Your task to perform on an android device: check out phone information Image 0: 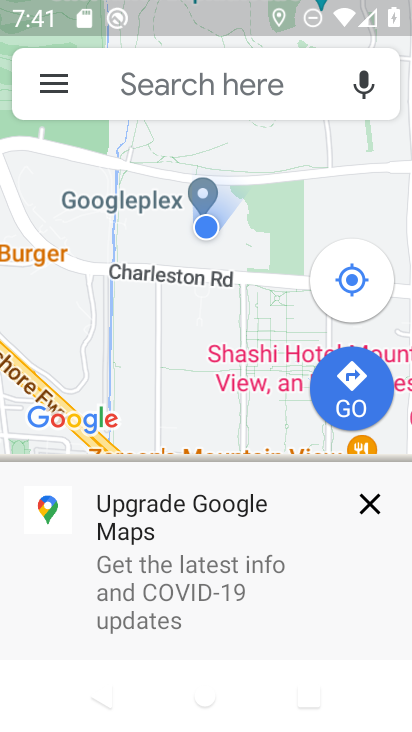
Step 0: press home button
Your task to perform on an android device: check out phone information Image 1: 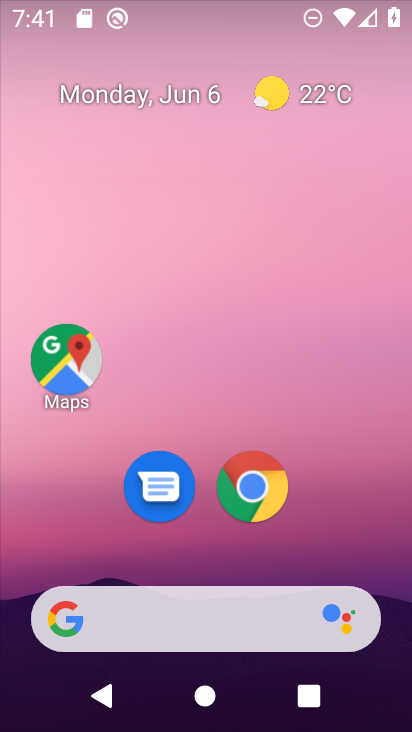
Step 1: click (388, 612)
Your task to perform on an android device: check out phone information Image 2: 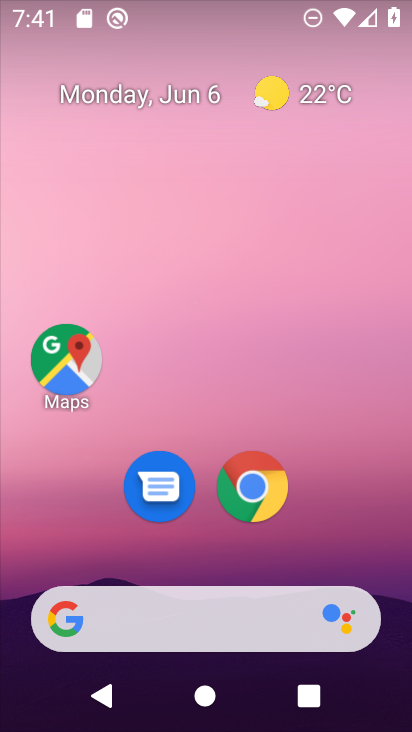
Step 2: drag from (352, 354) to (260, 17)
Your task to perform on an android device: check out phone information Image 3: 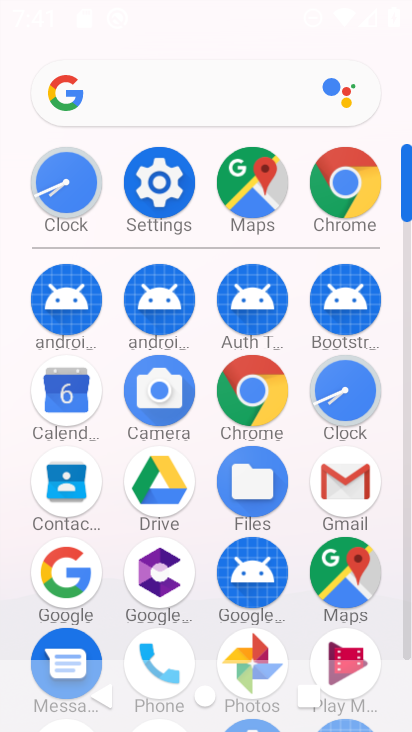
Step 3: click (154, 180)
Your task to perform on an android device: check out phone information Image 4: 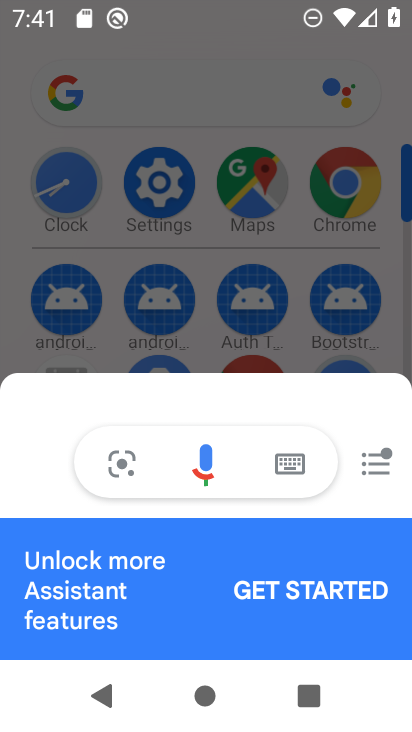
Step 4: task complete